Your task to perform on an android device: install app "Google Chrome" Image 0: 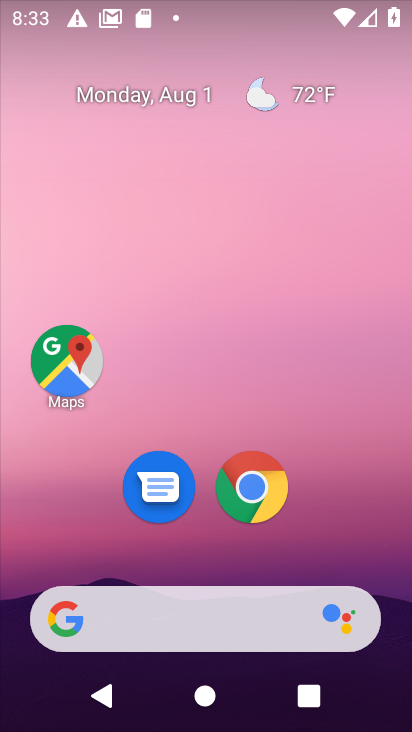
Step 0: click (242, 486)
Your task to perform on an android device: install app "Google Chrome" Image 1: 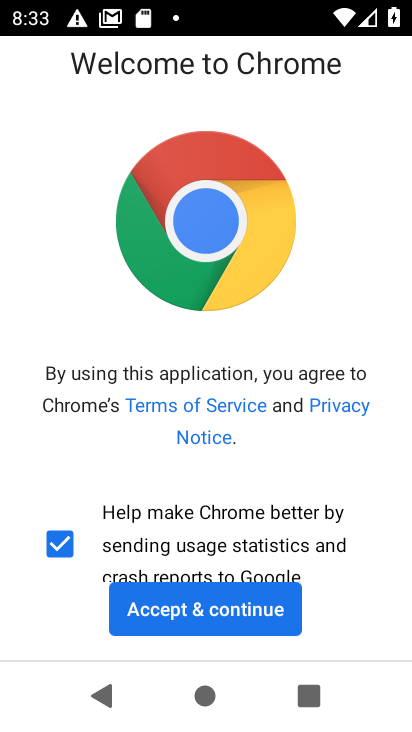
Step 1: task complete